Your task to perform on an android device: What's the news in Sri Lanka? Image 0: 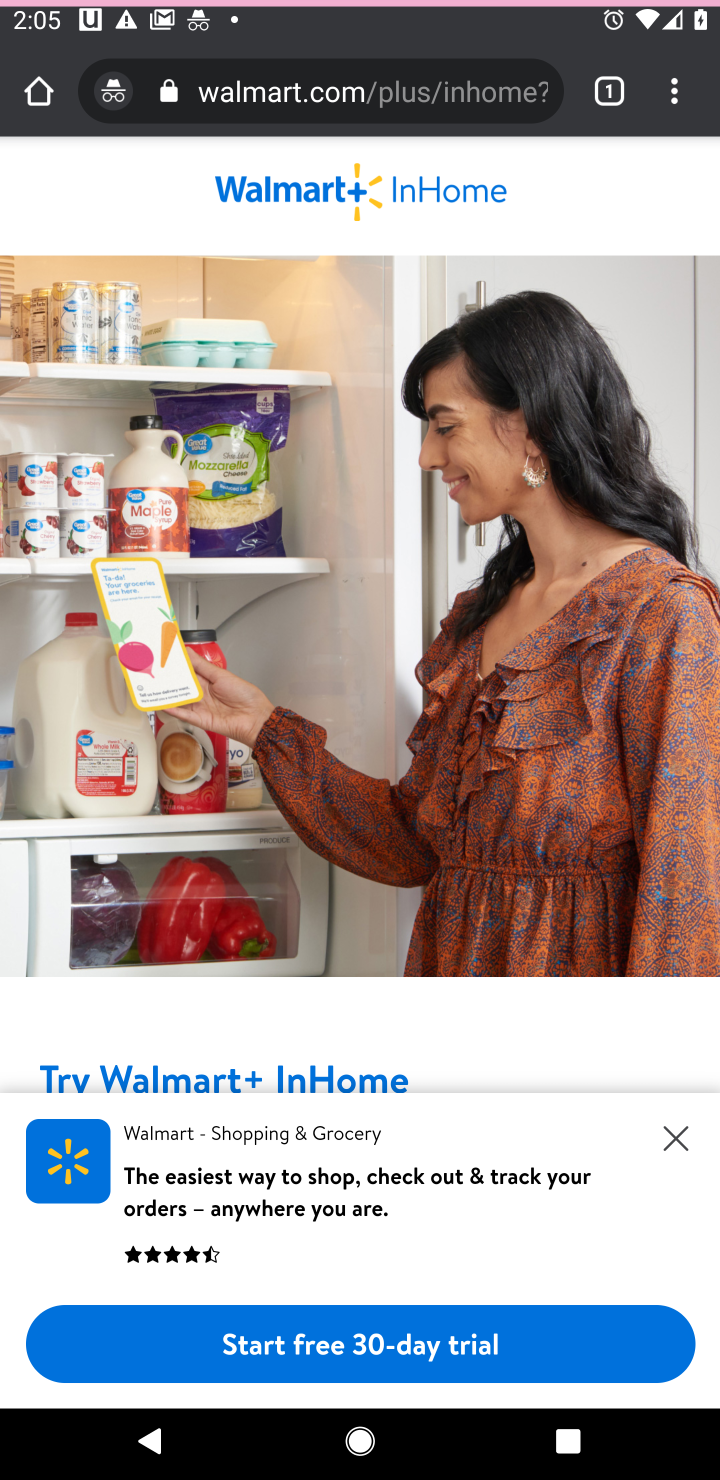
Step 0: press home button
Your task to perform on an android device: What's the news in Sri Lanka? Image 1: 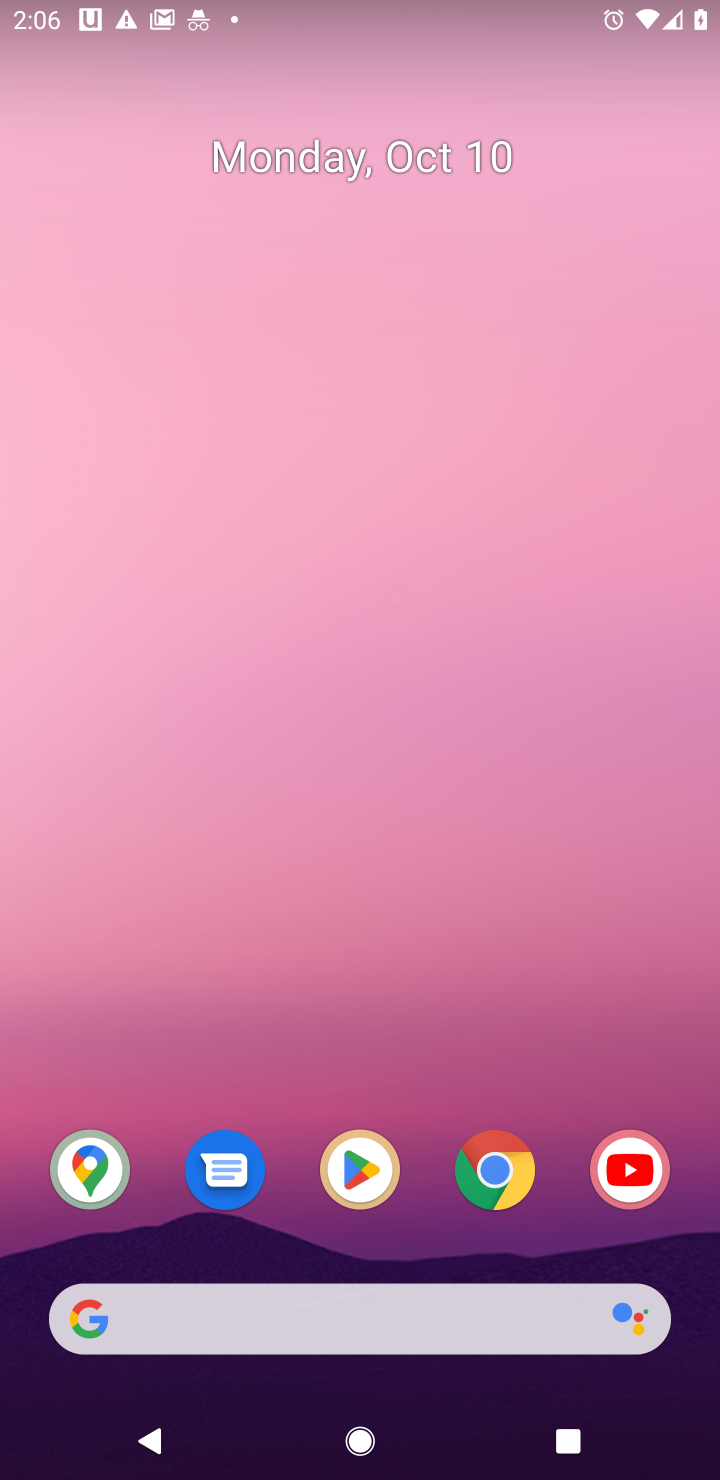
Step 1: click (493, 1170)
Your task to perform on an android device: What's the news in Sri Lanka? Image 2: 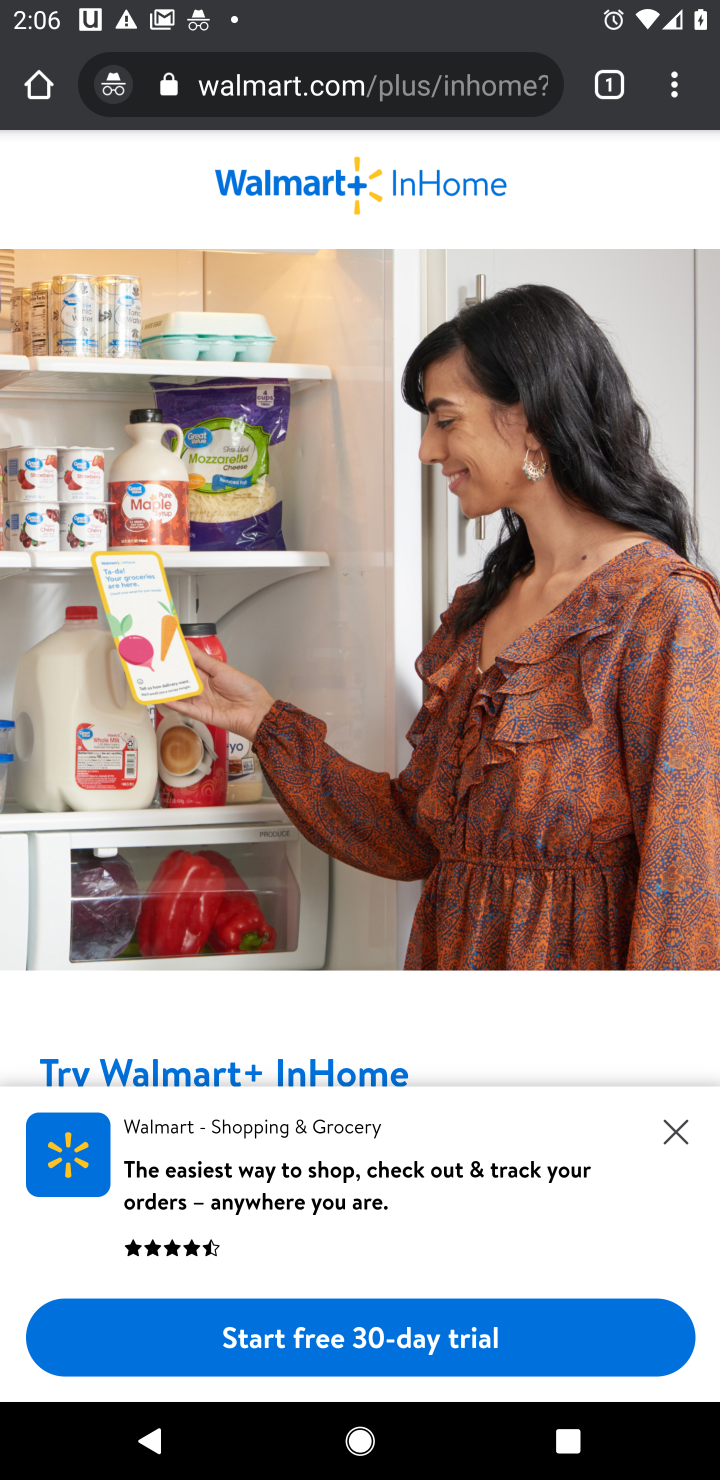
Step 2: click (342, 79)
Your task to perform on an android device: What's the news in Sri Lanka? Image 3: 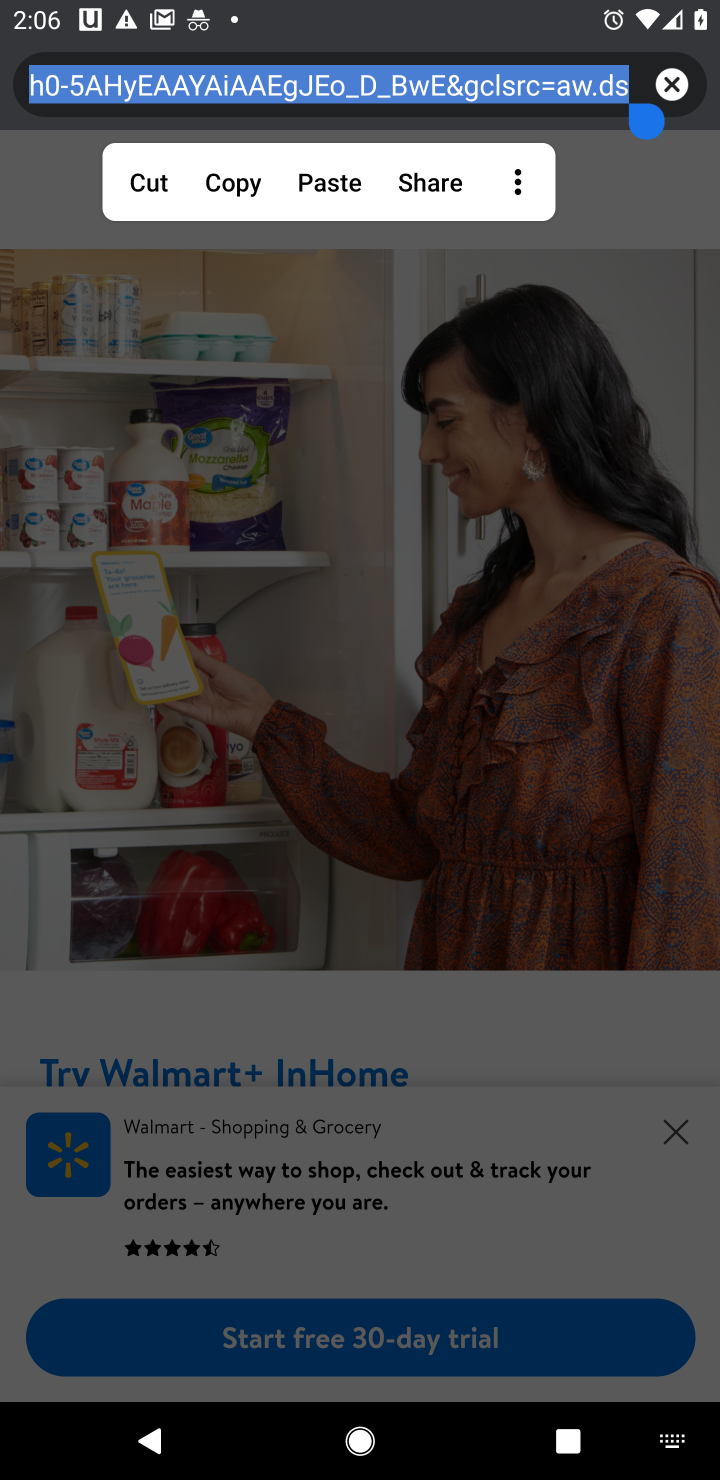
Step 3: click (681, 79)
Your task to perform on an android device: What's the news in Sri Lanka? Image 4: 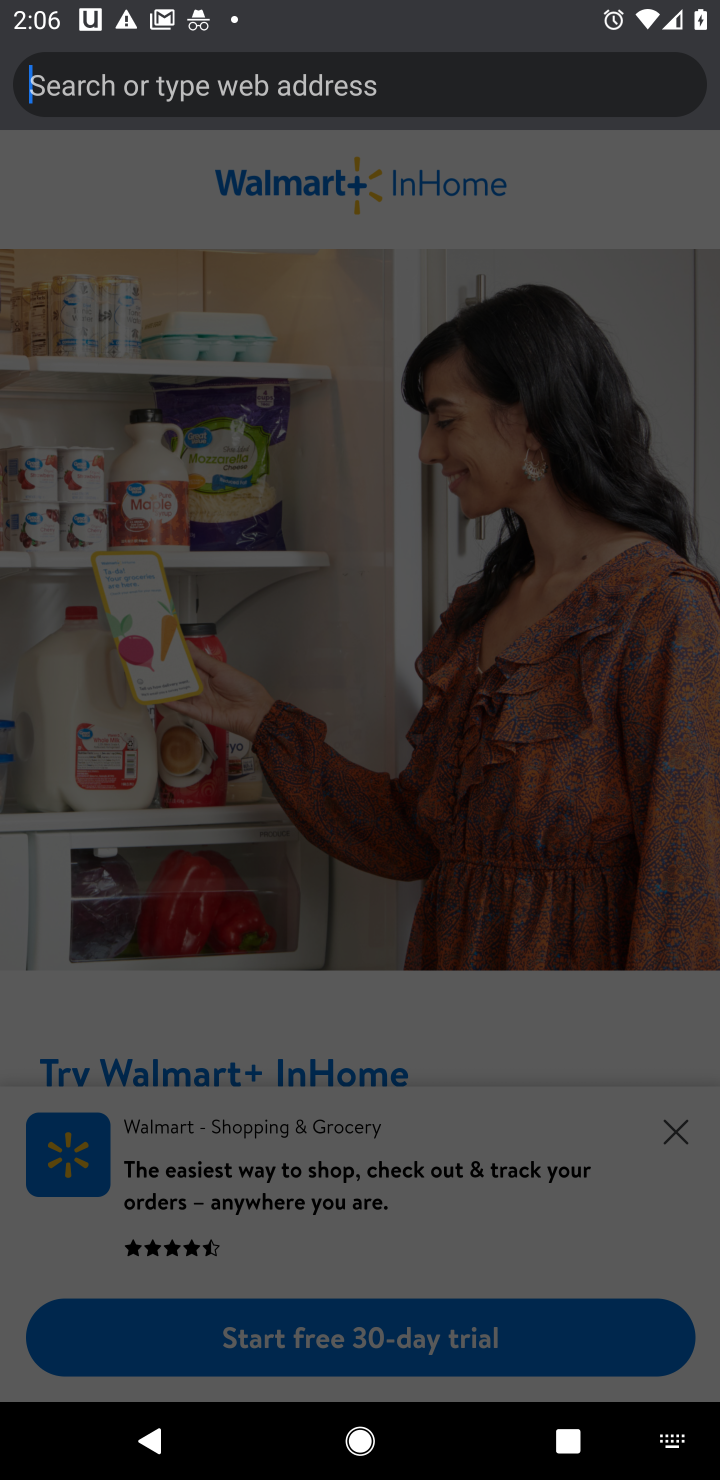
Step 4: type "news in sri lanka"
Your task to perform on an android device: What's the news in Sri Lanka? Image 5: 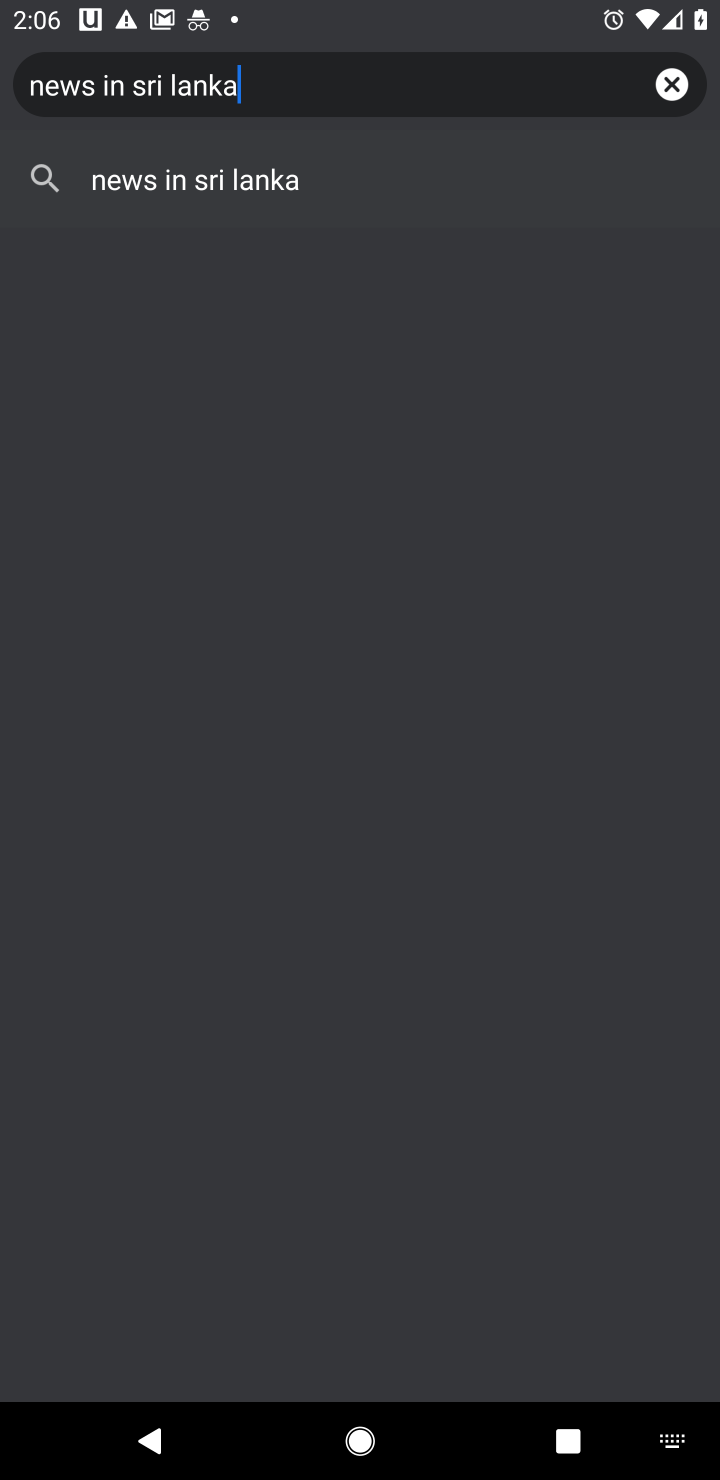
Step 5: click (274, 199)
Your task to perform on an android device: What's the news in Sri Lanka? Image 6: 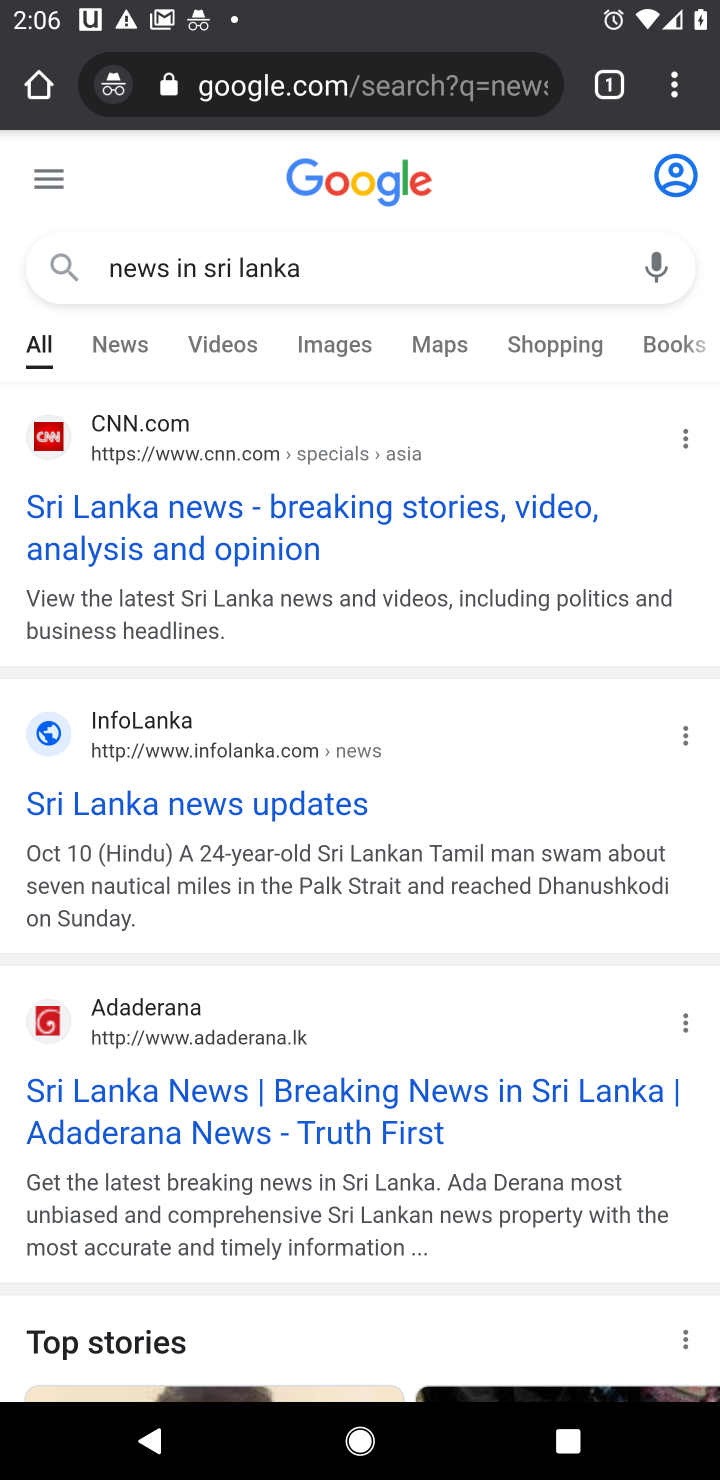
Step 6: click (139, 520)
Your task to perform on an android device: What's the news in Sri Lanka? Image 7: 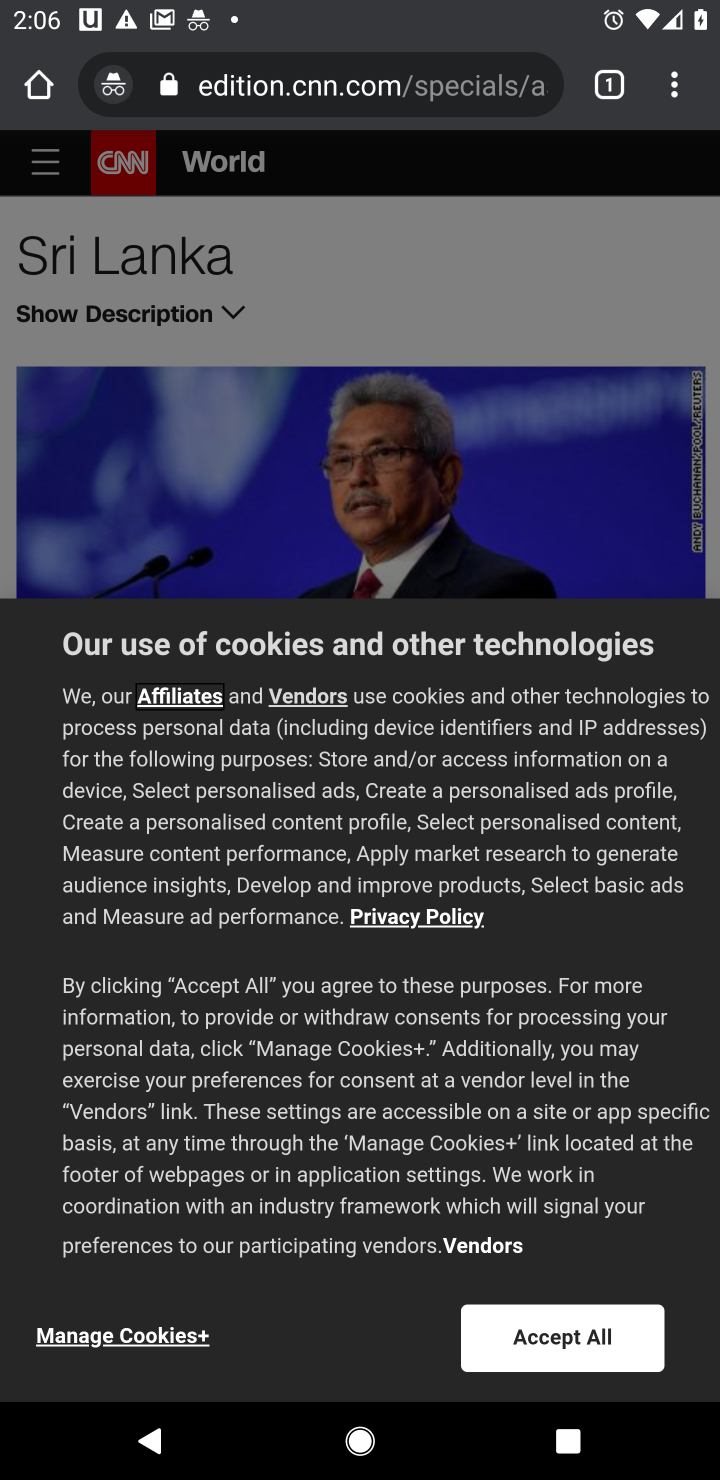
Step 7: task complete